Your task to perform on an android device: Search for vegetarian restaurants on Maps Image 0: 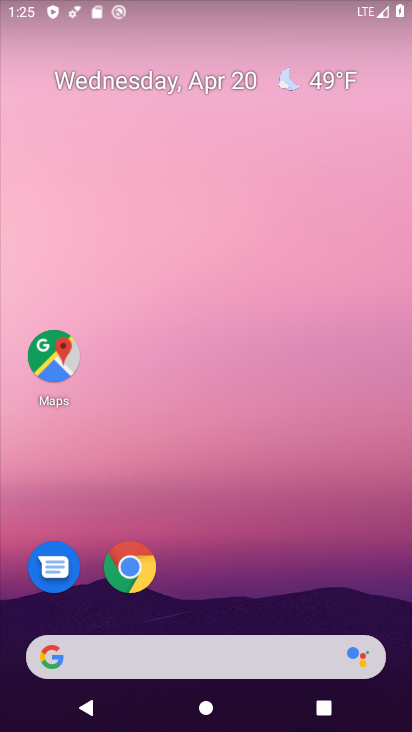
Step 0: click (31, 367)
Your task to perform on an android device: Search for vegetarian restaurants on Maps Image 1: 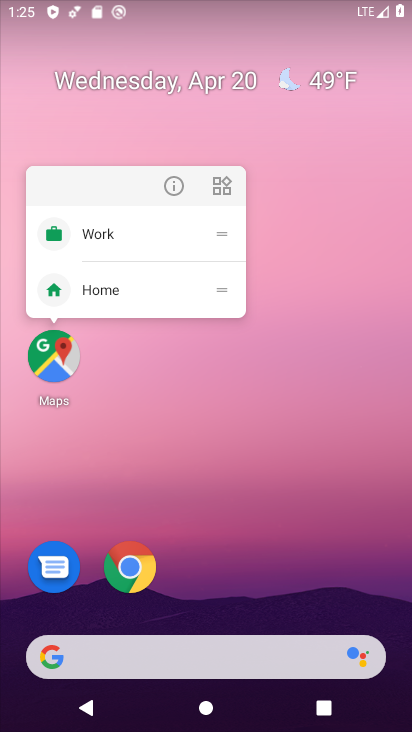
Step 1: click (70, 360)
Your task to perform on an android device: Search for vegetarian restaurants on Maps Image 2: 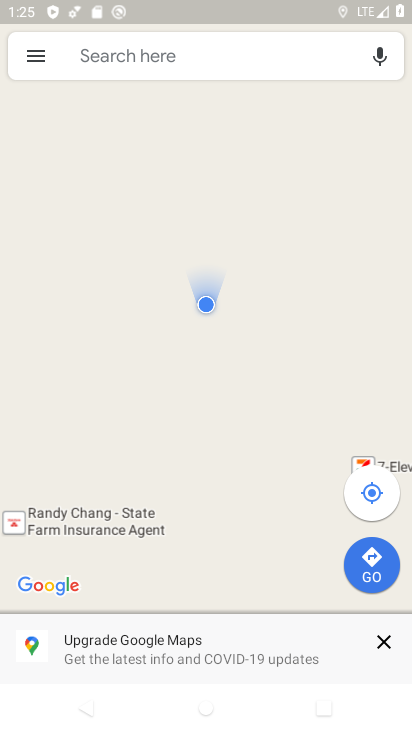
Step 2: click (223, 54)
Your task to perform on an android device: Search for vegetarian restaurants on Maps Image 3: 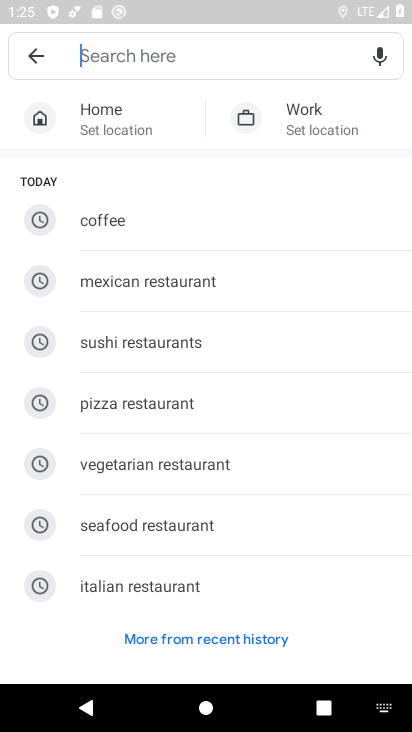
Step 3: type "vegetarian restaurants"
Your task to perform on an android device: Search for vegetarian restaurants on Maps Image 4: 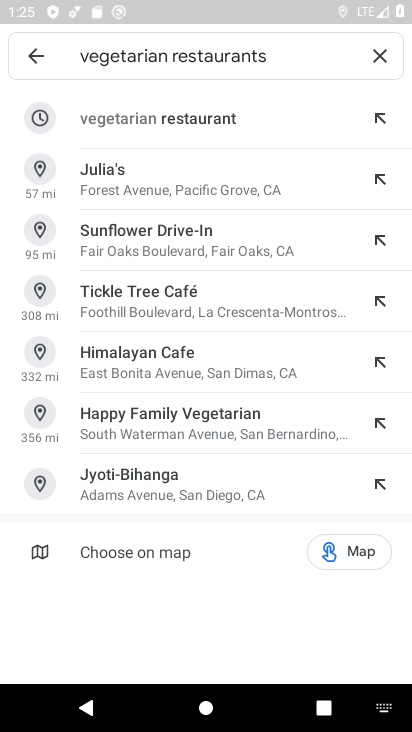
Step 4: click (230, 119)
Your task to perform on an android device: Search for vegetarian restaurants on Maps Image 5: 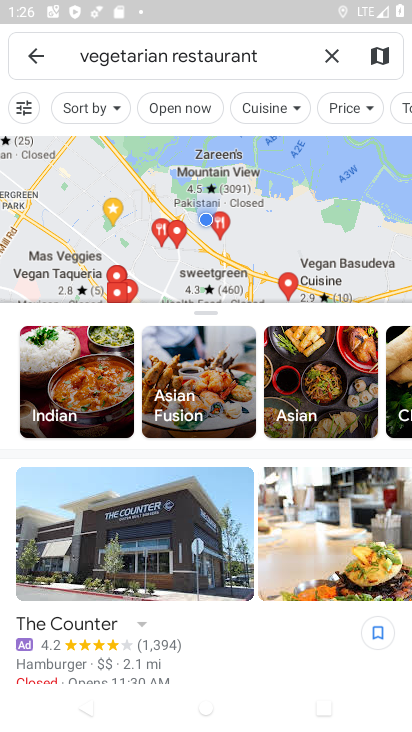
Step 5: task complete